Your task to perform on an android device: change the clock style Image 0: 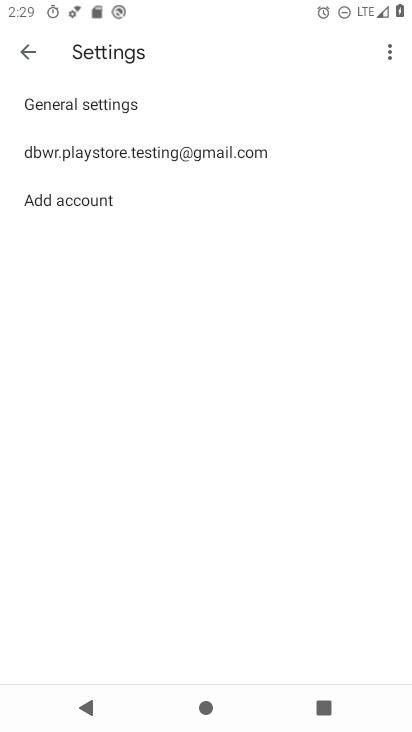
Step 0: press home button
Your task to perform on an android device: change the clock style Image 1: 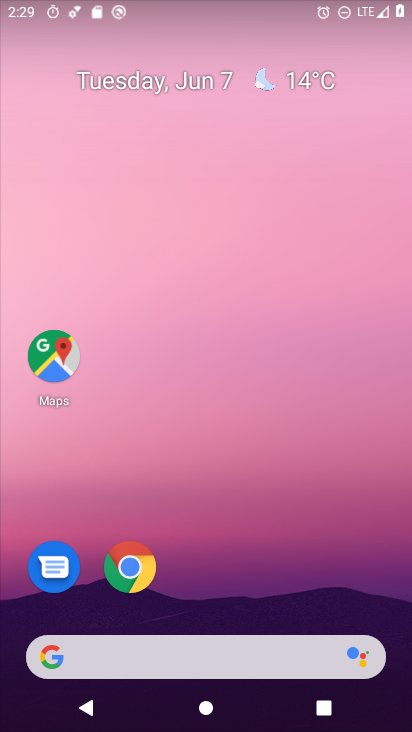
Step 1: drag from (275, 532) to (294, 141)
Your task to perform on an android device: change the clock style Image 2: 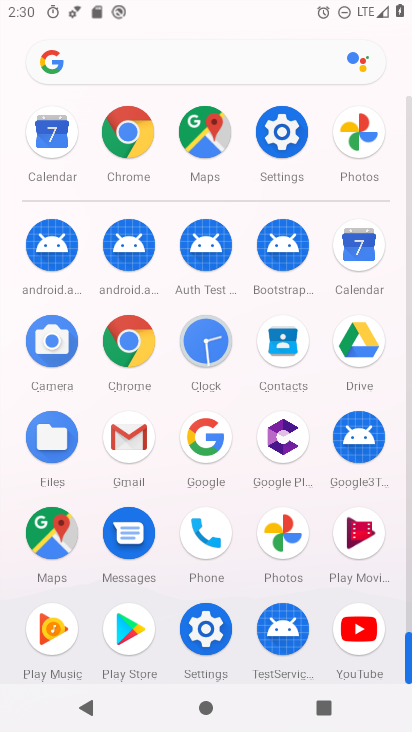
Step 2: click (215, 348)
Your task to perform on an android device: change the clock style Image 3: 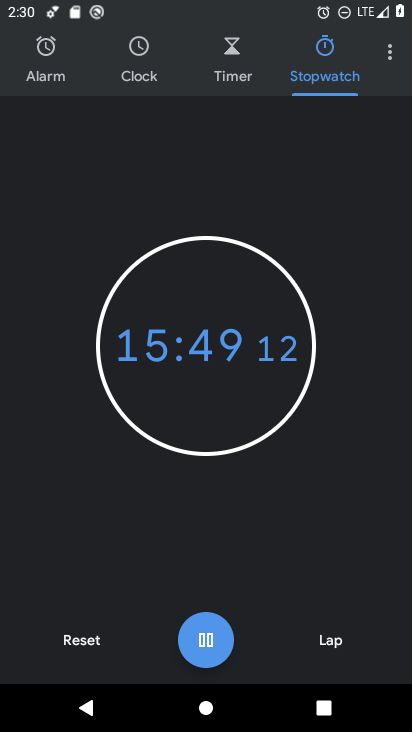
Step 3: click (378, 49)
Your task to perform on an android device: change the clock style Image 4: 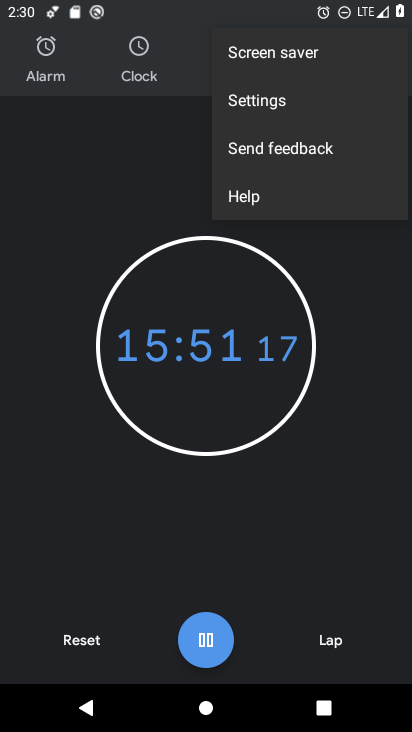
Step 4: click (267, 118)
Your task to perform on an android device: change the clock style Image 5: 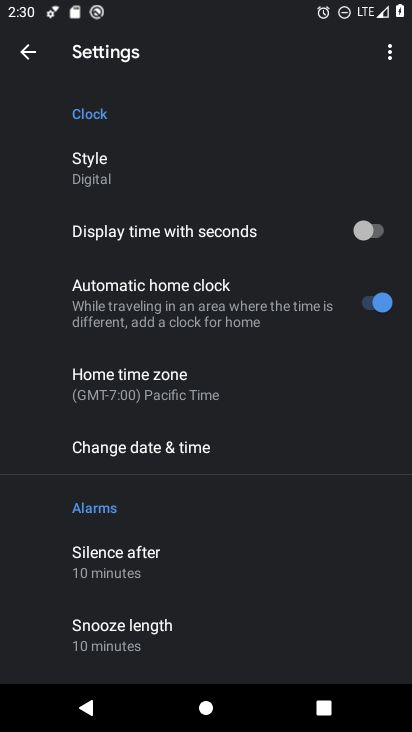
Step 5: click (104, 163)
Your task to perform on an android device: change the clock style Image 6: 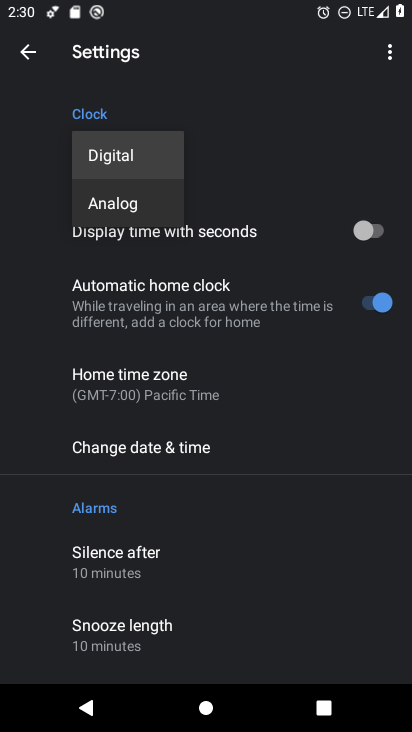
Step 6: click (105, 210)
Your task to perform on an android device: change the clock style Image 7: 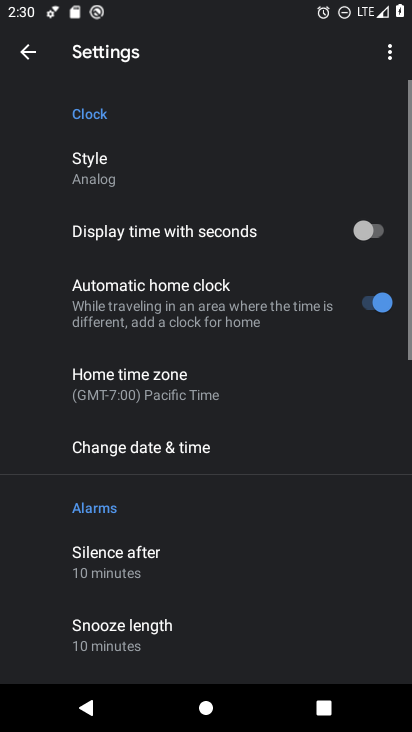
Step 7: task complete